Your task to perform on an android device: install app "Truecaller" Image 0: 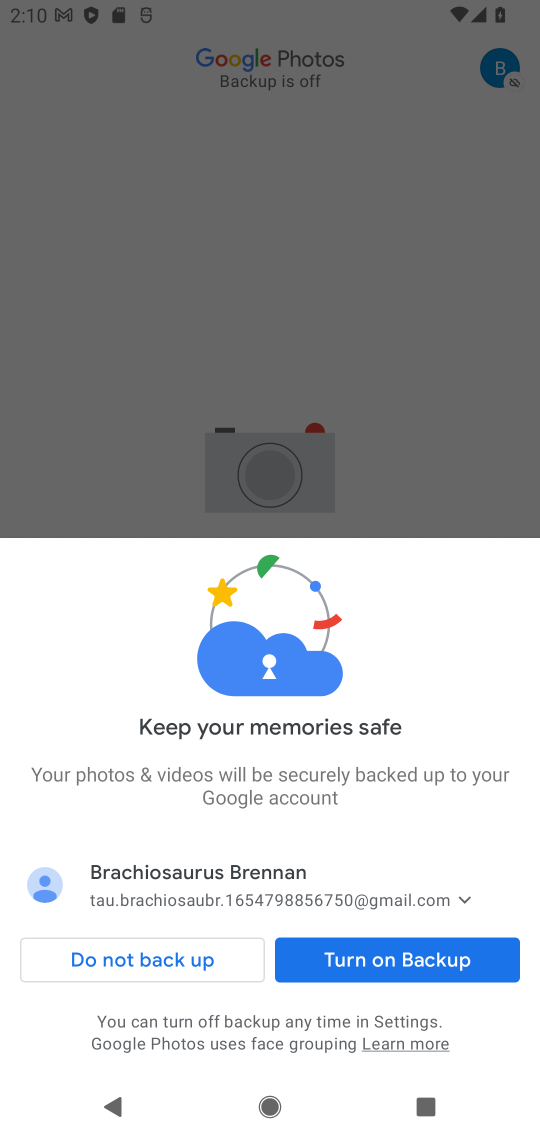
Step 0: press home button
Your task to perform on an android device: install app "Truecaller" Image 1: 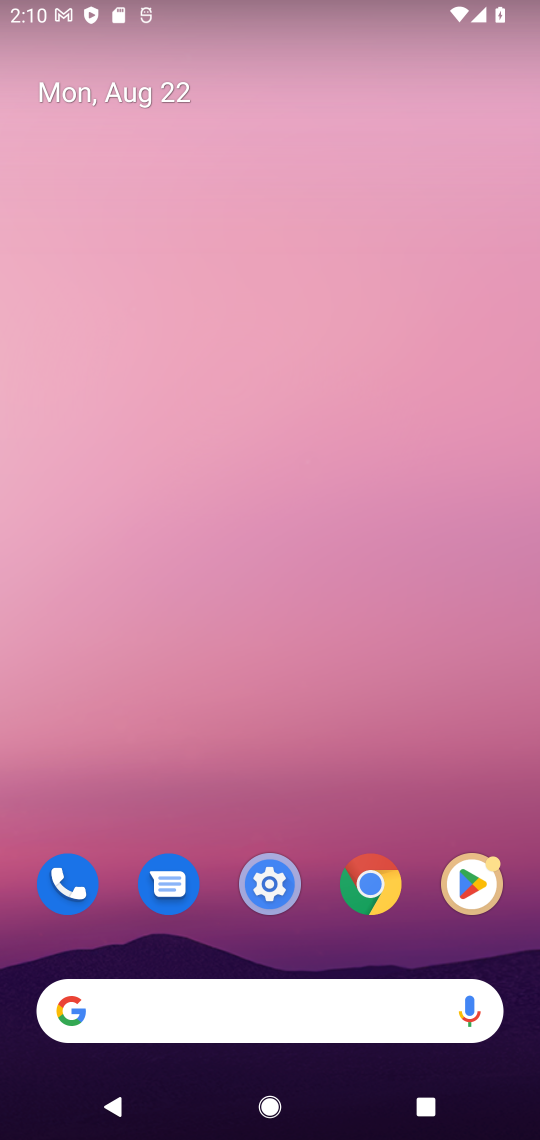
Step 1: click (455, 880)
Your task to perform on an android device: install app "Truecaller" Image 2: 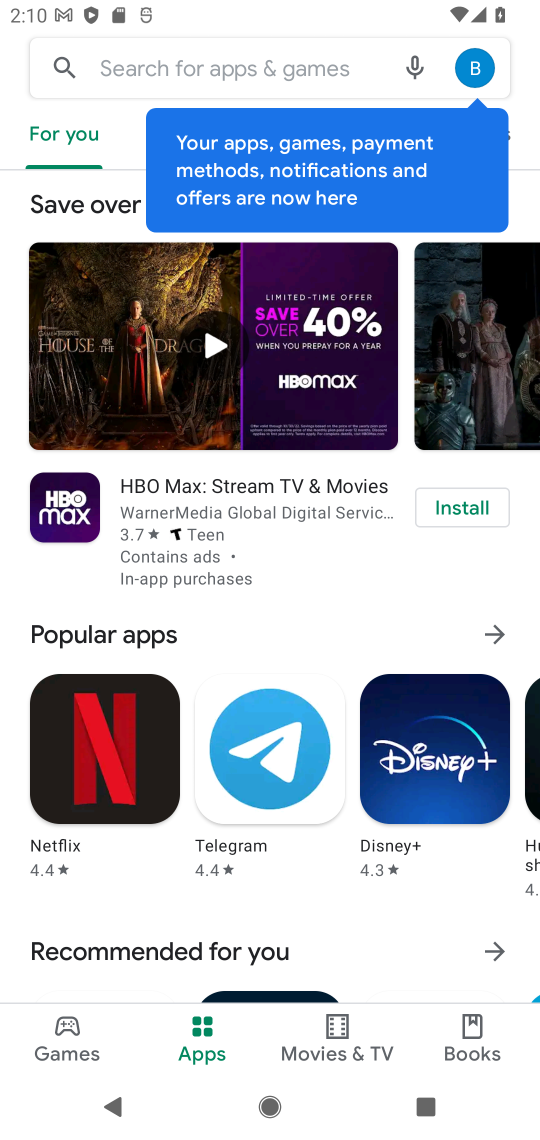
Step 2: click (206, 60)
Your task to perform on an android device: install app "Truecaller" Image 3: 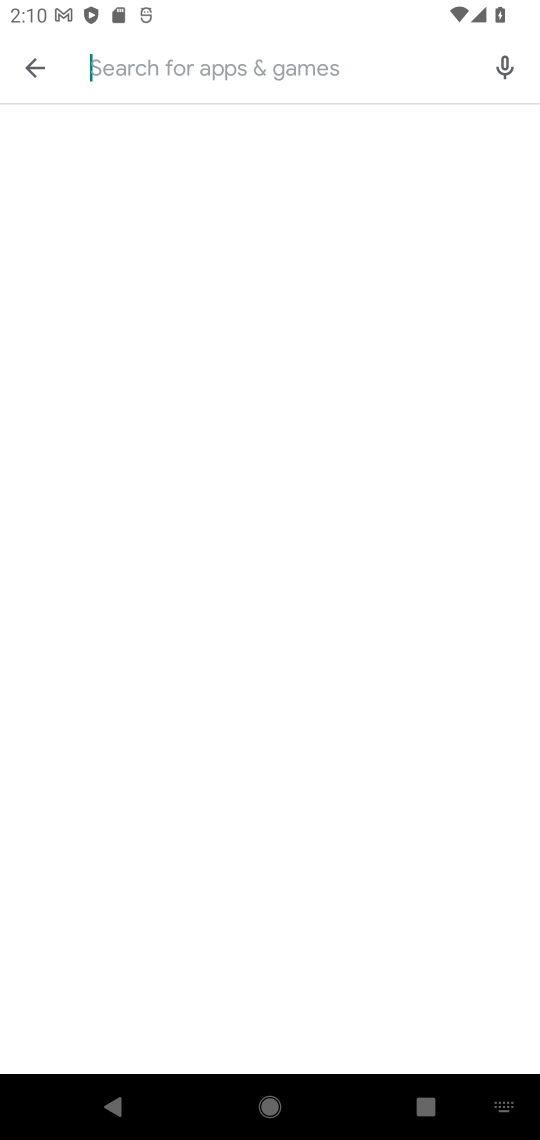
Step 3: type "truecaller"
Your task to perform on an android device: install app "Truecaller" Image 4: 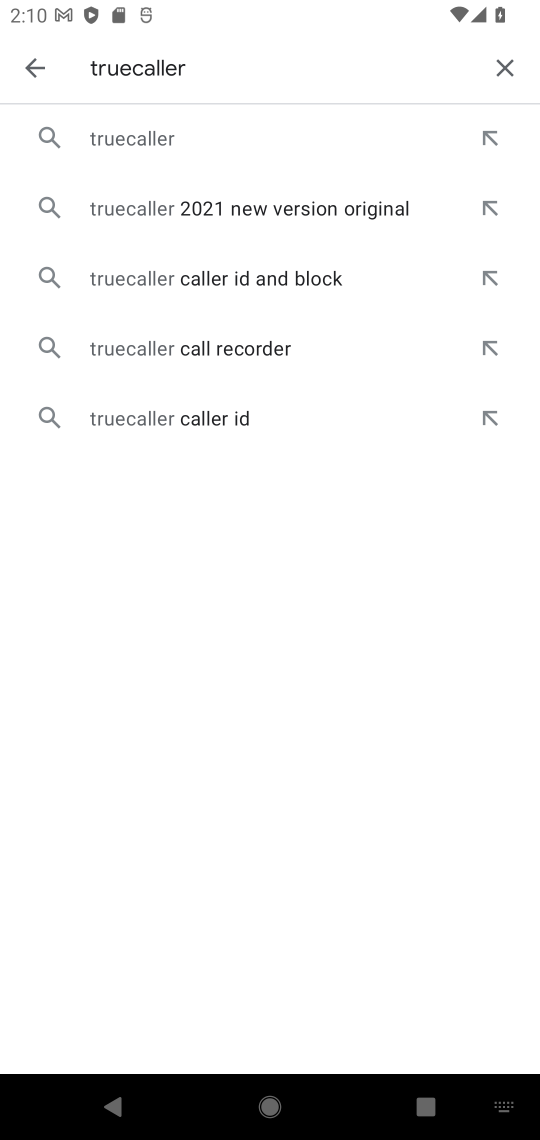
Step 4: click (104, 135)
Your task to perform on an android device: install app "Truecaller" Image 5: 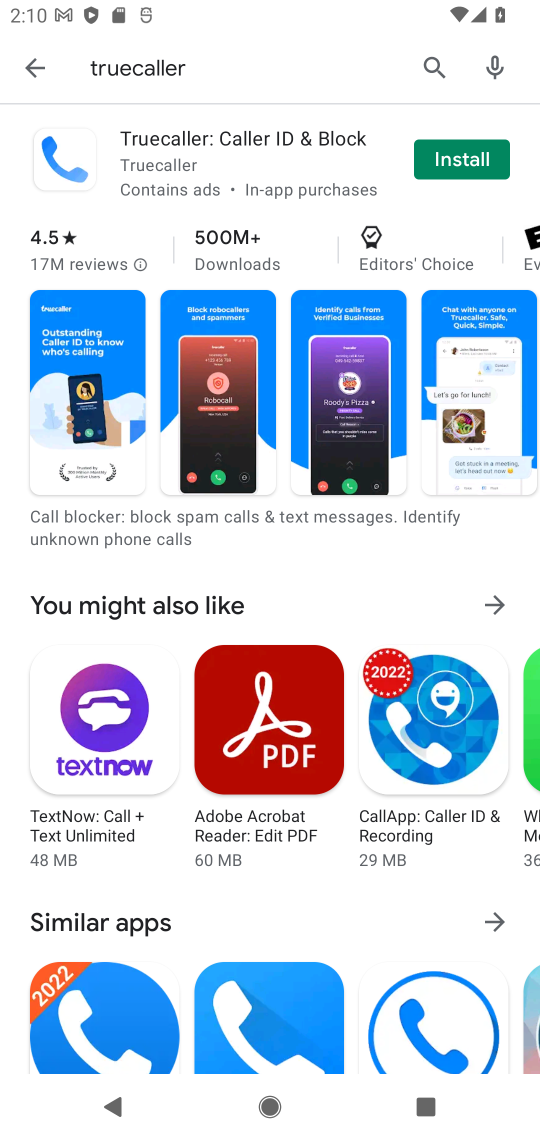
Step 5: click (453, 157)
Your task to perform on an android device: install app "Truecaller" Image 6: 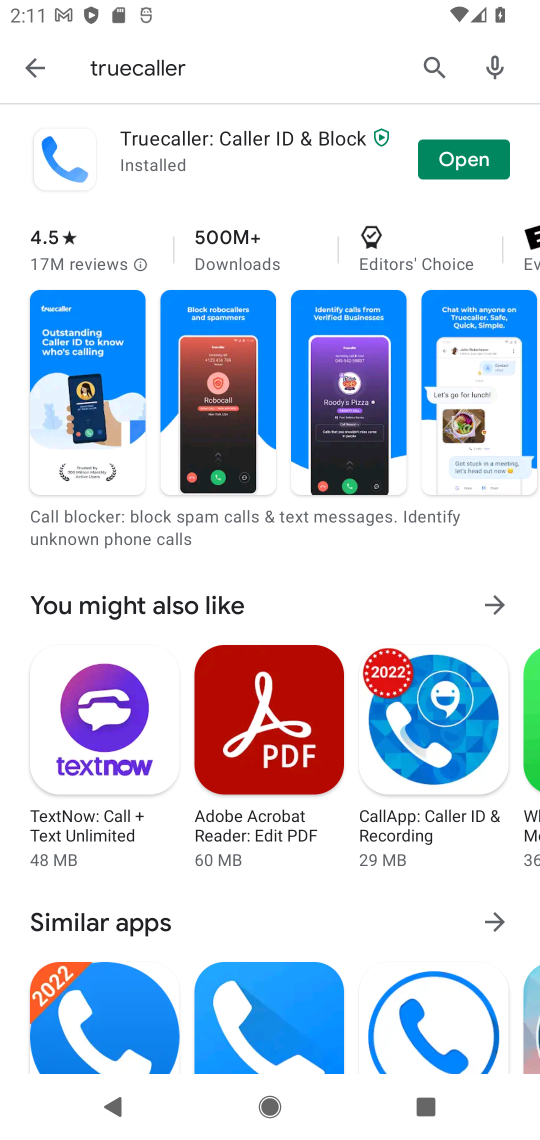
Step 6: task complete